Your task to perform on an android device: Search for the best selling TV on Best Buy. Image 0: 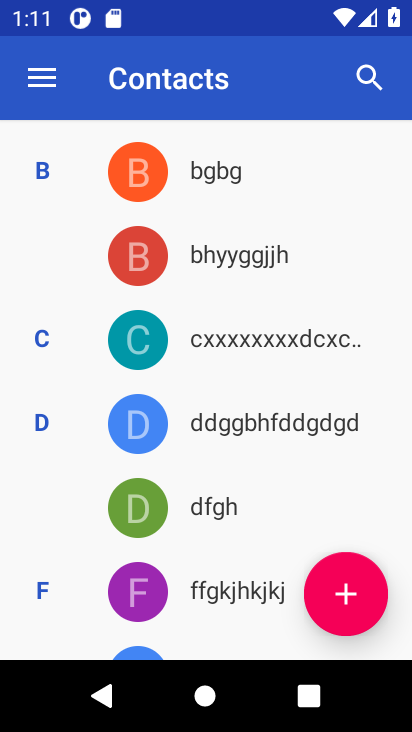
Step 0: press back button
Your task to perform on an android device: Search for the best selling TV on Best Buy. Image 1: 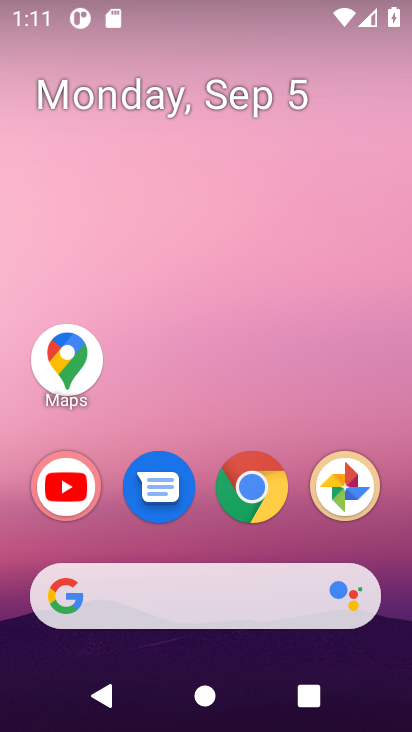
Step 1: click (238, 501)
Your task to perform on an android device: Search for the best selling TV on Best Buy. Image 2: 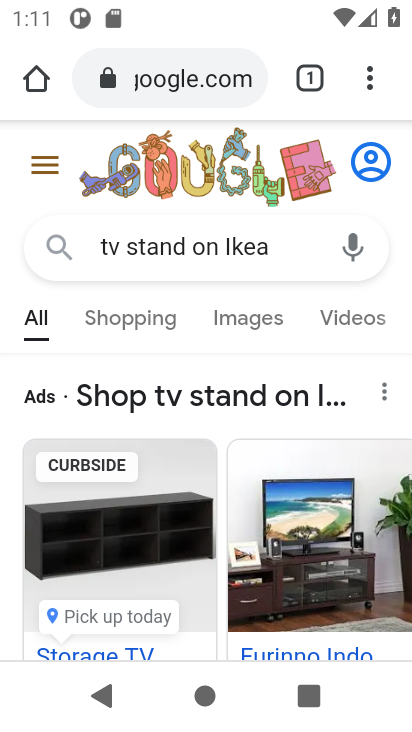
Step 2: click (195, 90)
Your task to perform on an android device: Search for the best selling TV on Best Buy. Image 3: 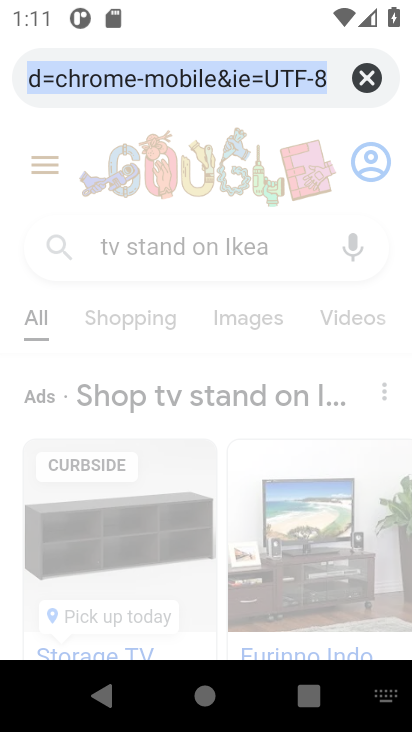
Step 3: click (360, 82)
Your task to perform on an android device: Search for the best selling TV on Best Buy. Image 4: 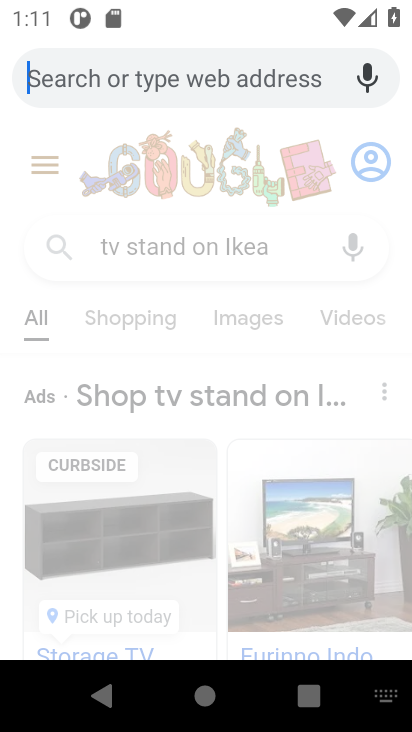
Step 4: type "the best selling TV on Best Buy."
Your task to perform on an android device: Search for the best selling TV on Best Buy. Image 5: 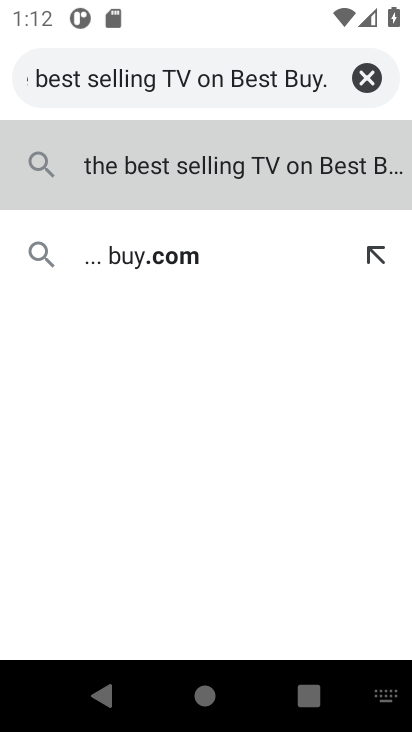
Step 5: click (174, 162)
Your task to perform on an android device: Search for the best selling TV on Best Buy. Image 6: 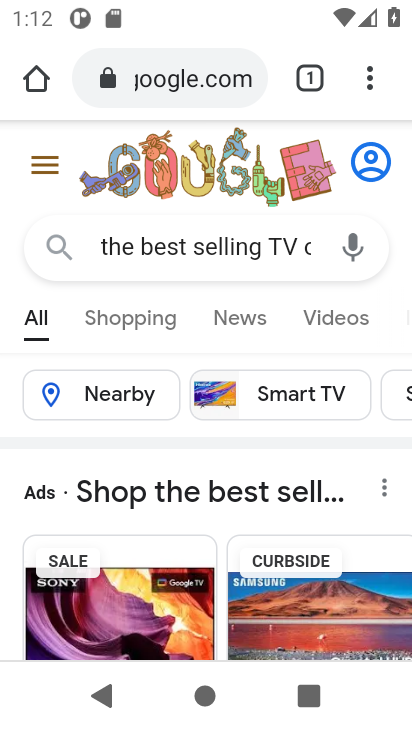
Step 6: task complete